Your task to perform on an android device: make emails show in primary in the gmail app Image 0: 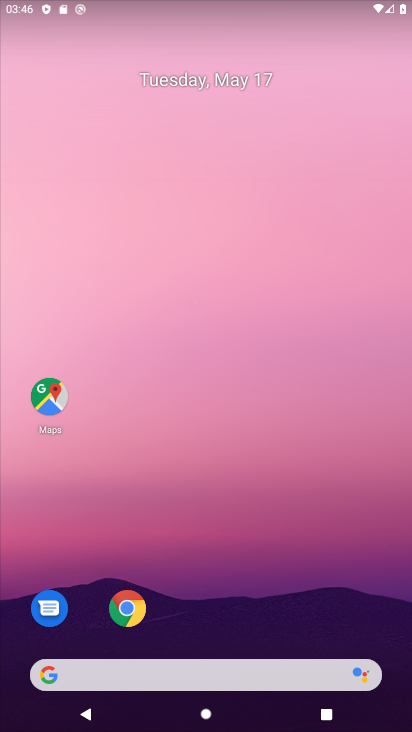
Step 0: drag from (218, 659) to (230, 333)
Your task to perform on an android device: make emails show in primary in the gmail app Image 1: 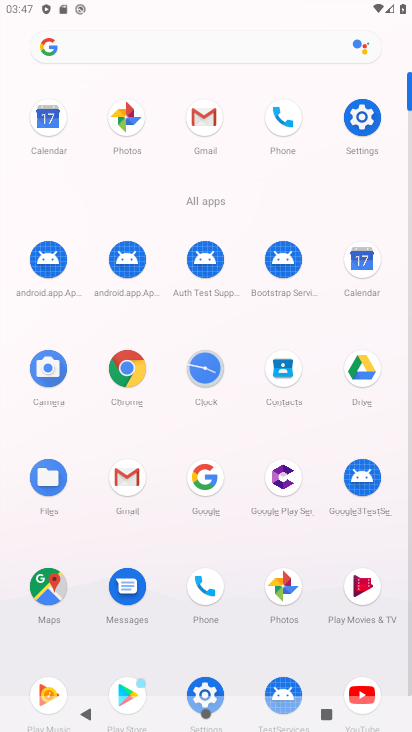
Step 1: click (121, 486)
Your task to perform on an android device: make emails show in primary in the gmail app Image 2: 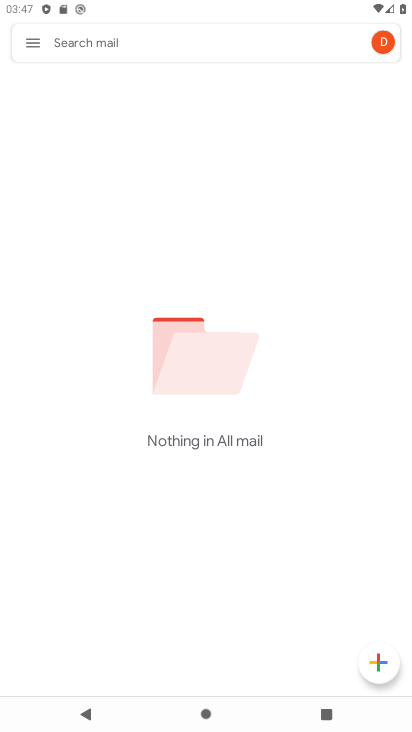
Step 2: click (35, 48)
Your task to perform on an android device: make emails show in primary in the gmail app Image 3: 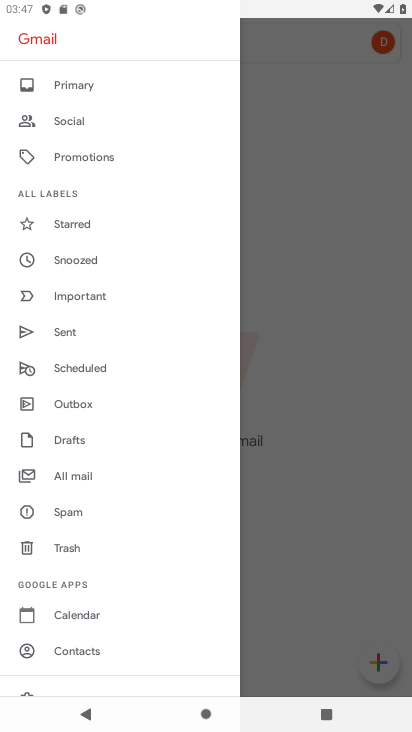
Step 3: drag from (88, 647) to (83, 392)
Your task to perform on an android device: make emails show in primary in the gmail app Image 4: 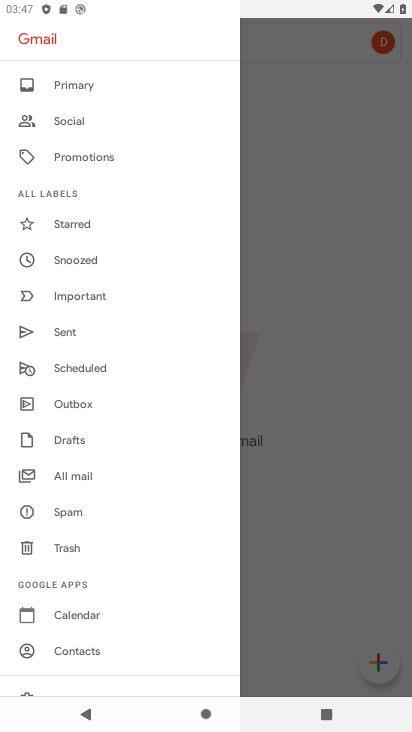
Step 4: drag from (87, 504) to (99, 408)
Your task to perform on an android device: make emails show in primary in the gmail app Image 5: 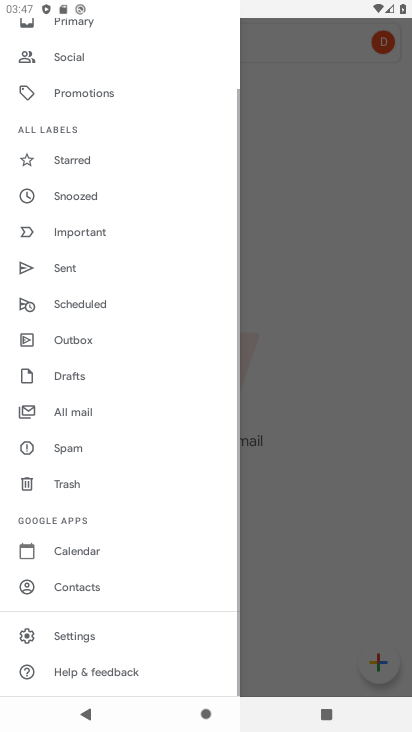
Step 5: click (114, 275)
Your task to perform on an android device: make emails show in primary in the gmail app Image 6: 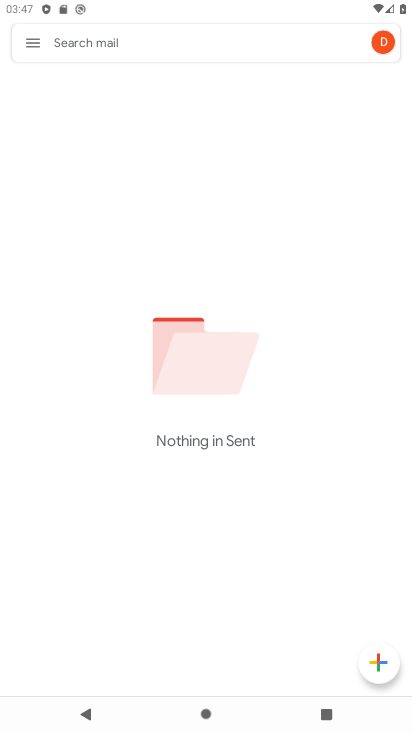
Step 6: click (89, 635)
Your task to perform on an android device: make emails show in primary in the gmail app Image 7: 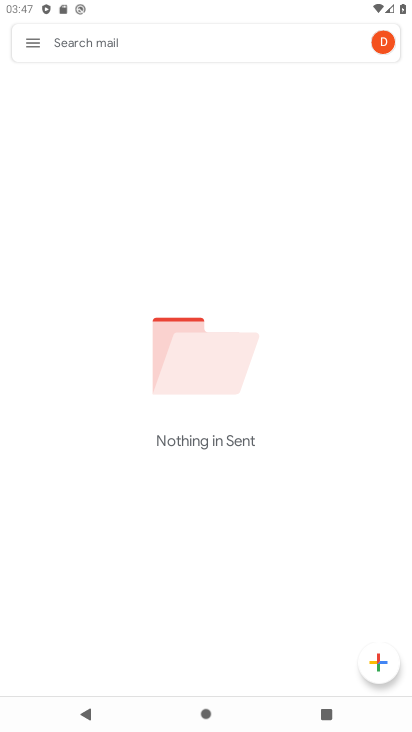
Step 7: click (36, 45)
Your task to perform on an android device: make emails show in primary in the gmail app Image 8: 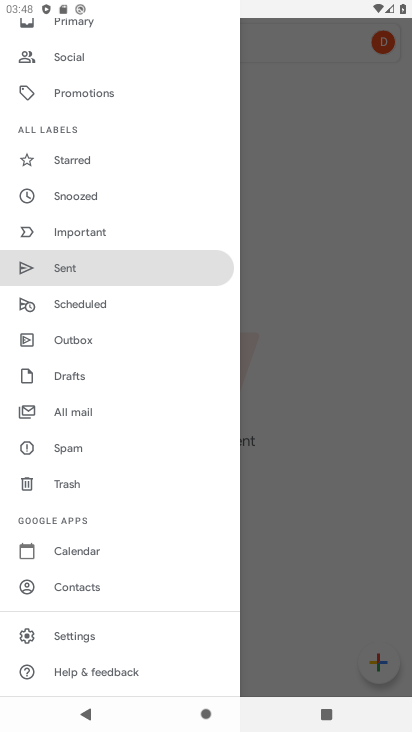
Step 8: click (70, 640)
Your task to perform on an android device: make emails show in primary in the gmail app Image 9: 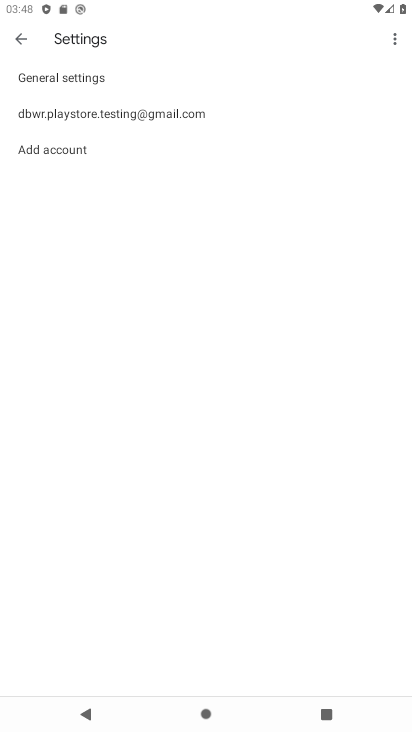
Step 9: click (56, 114)
Your task to perform on an android device: make emails show in primary in the gmail app Image 10: 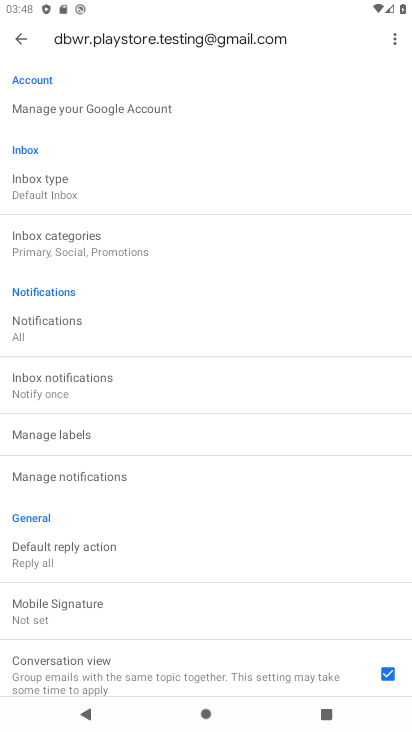
Step 10: click (57, 242)
Your task to perform on an android device: make emails show in primary in the gmail app Image 11: 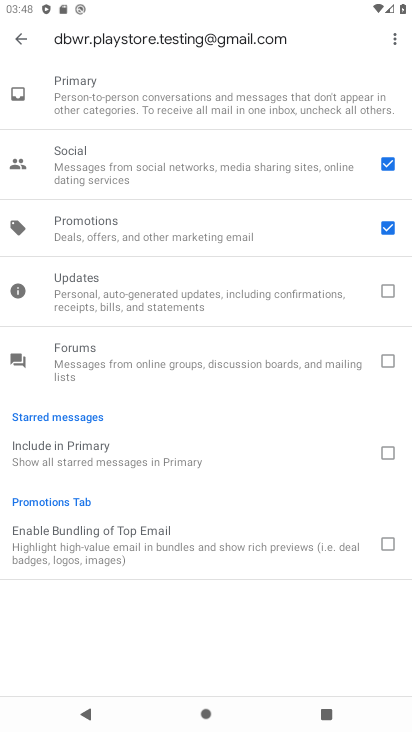
Step 11: click (390, 219)
Your task to perform on an android device: make emails show in primary in the gmail app Image 12: 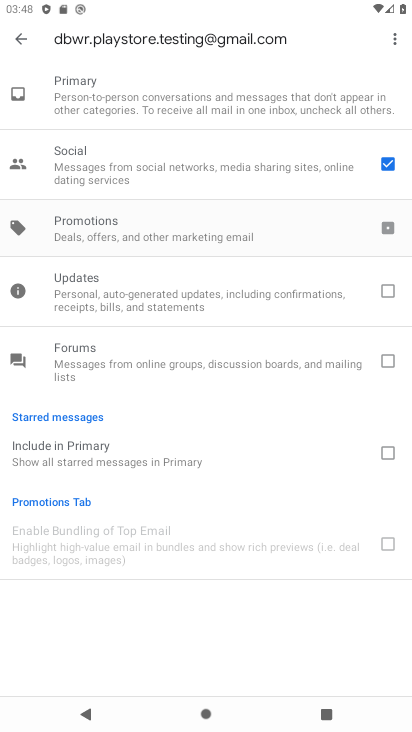
Step 12: click (392, 163)
Your task to perform on an android device: make emails show in primary in the gmail app Image 13: 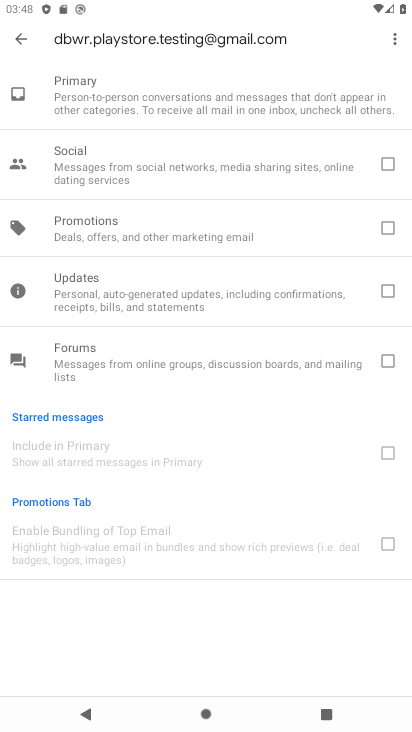
Step 13: click (18, 34)
Your task to perform on an android device: make emails show in primary in the gmail app Image 14: 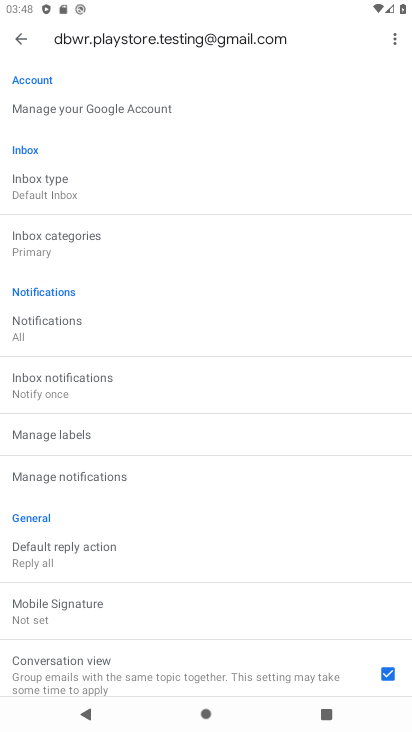
Step 14: task complete